Your task to perform on an android device: Open battery settings Image 0: 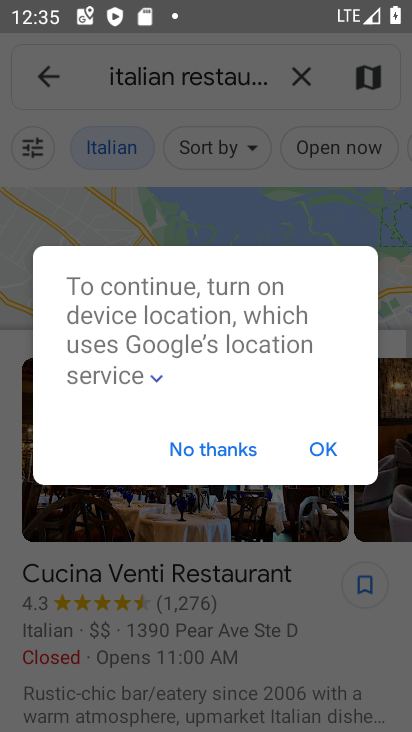
Step 0: press home button
Your task to perform on an android device: Open battery settings Image 1: 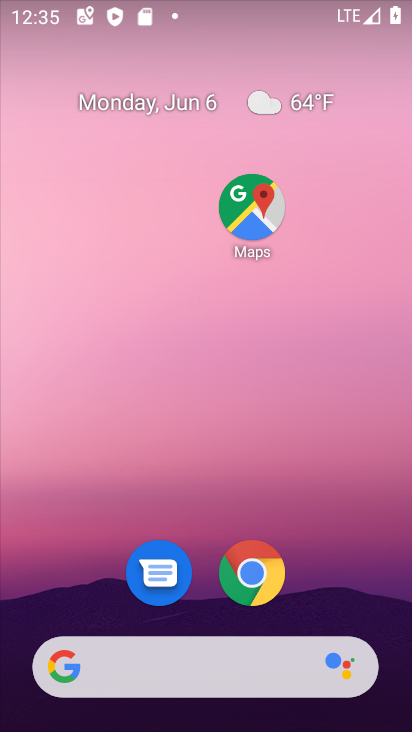
Step 1: drag from (208, 518) to (144, 119)
Your task to perform on an android device: Open battery settings Image 2: 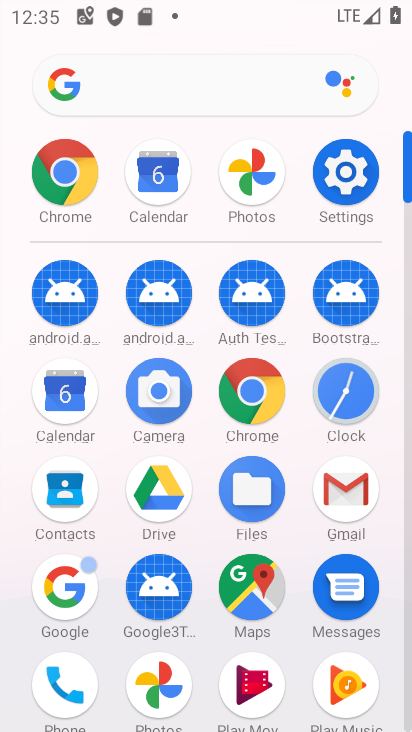
Step 2: drag from (211, 256) to (198, 53)
Your task to perform on an android device: Open battery settings Image 3: 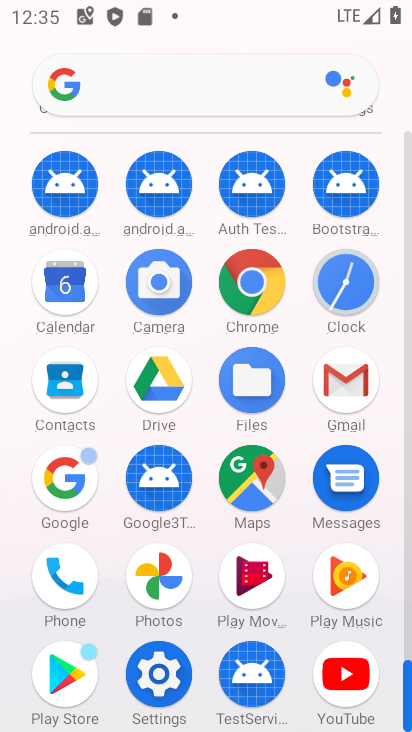
Step 3: click (168, 681)
Your task to perform on an android device: Open battery settings Image 4: 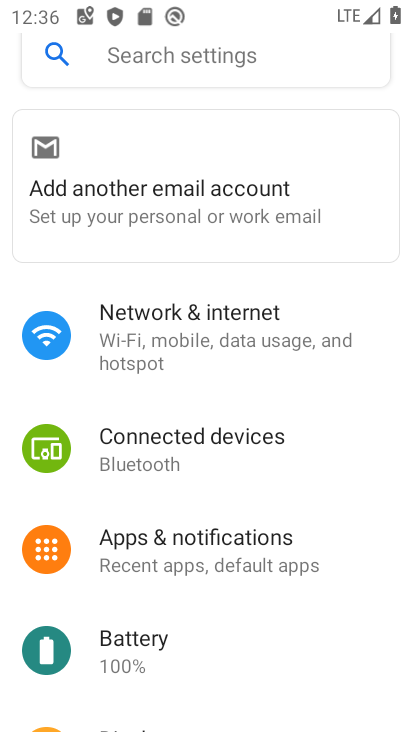
Step 4: click (146, 650)
Your task to perform on an android device: Open battery settings Image 5: 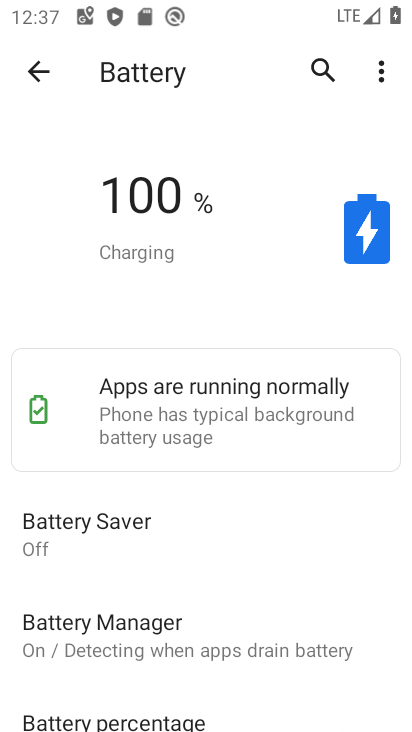
Step 5: task complete